Your task to perform on an android device: install app "Nova Launcher" Image 0: 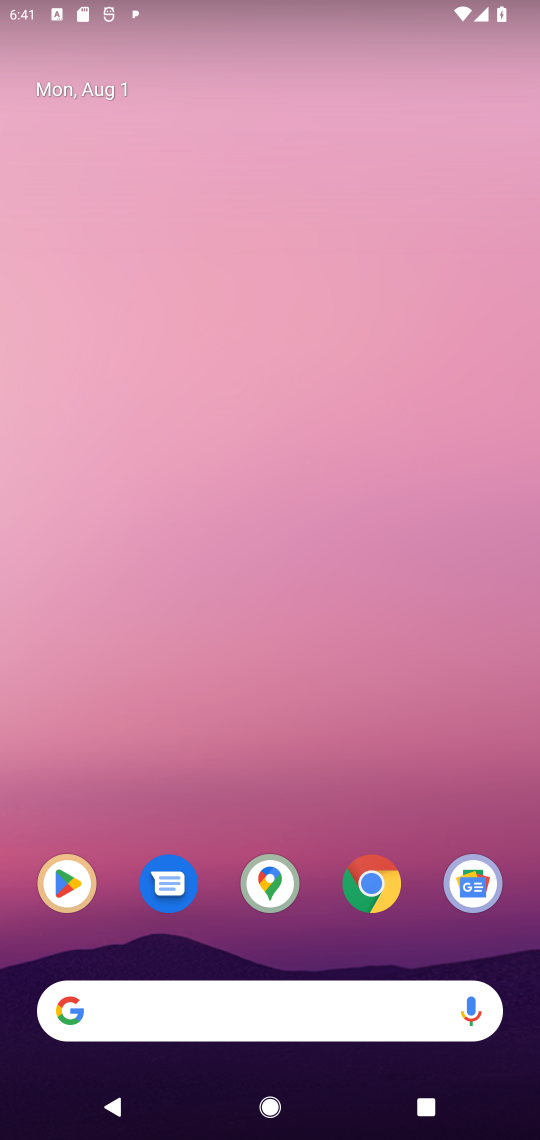
Step 0: click (54, 882)
Your task to perform on an android device: install app "Nova Launcher" Image 1: 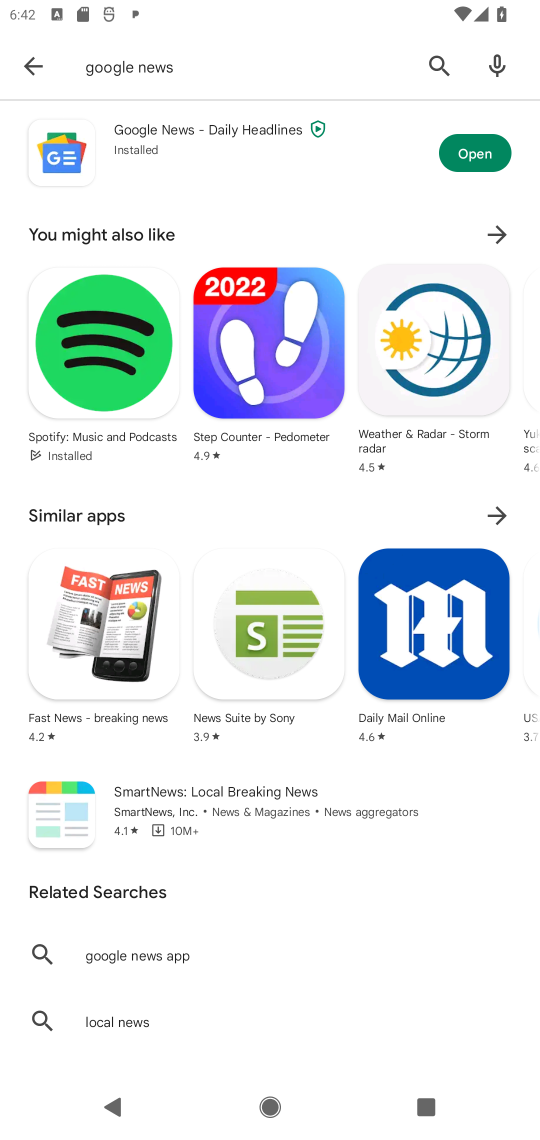
Step 1: click (39, 71)
Your task to perform on an android device: install app "Nova Launcher" Image 2: 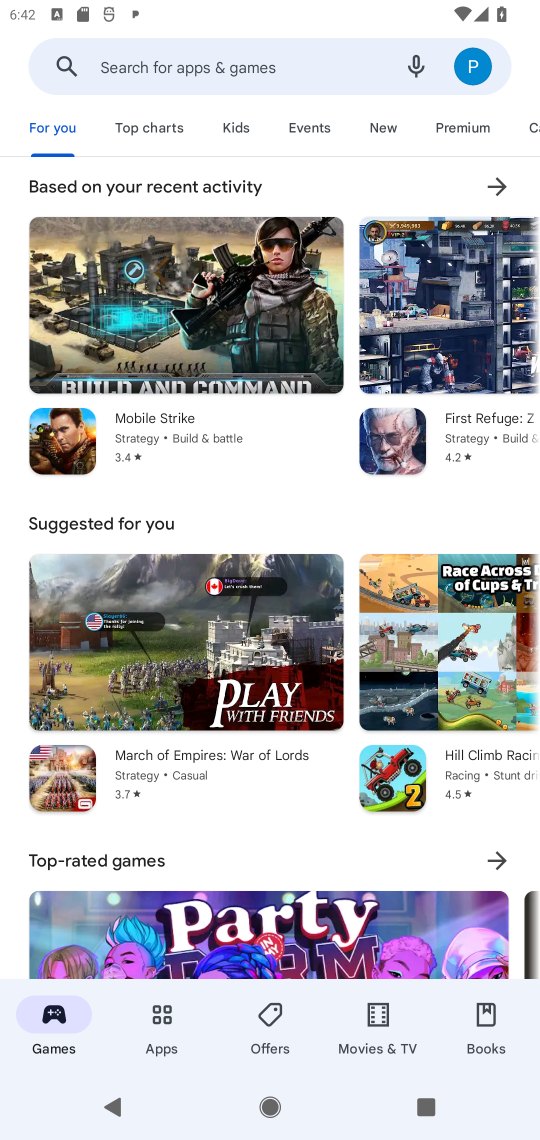
Step 2: click (183, 57)
Your task to perform on an android device: install app "Nova Launcher" Image 3: 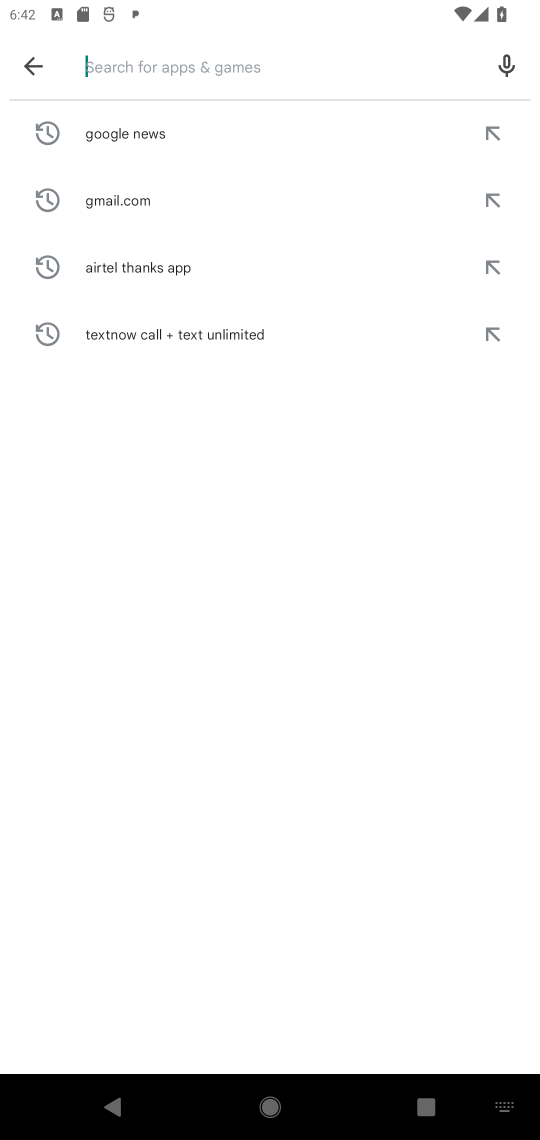
Step 3: type "Nova Launcher"
Your task to perform on an android device: install app "Nova Launcher" Image 4: 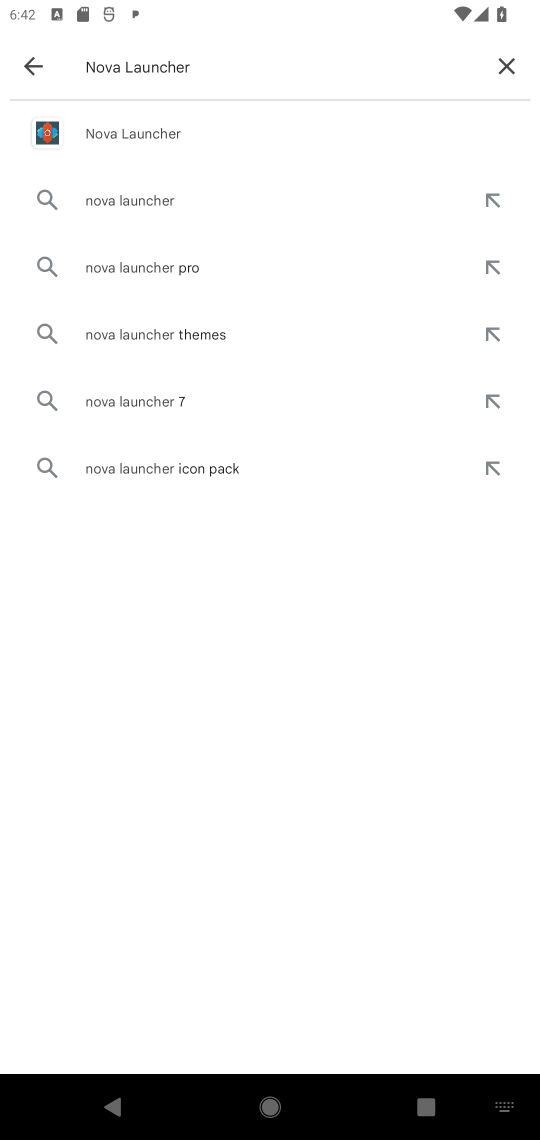
Step 4: click (132, 116)
Your task to perform on an android device: install app "Nova Launcher" Image 5: 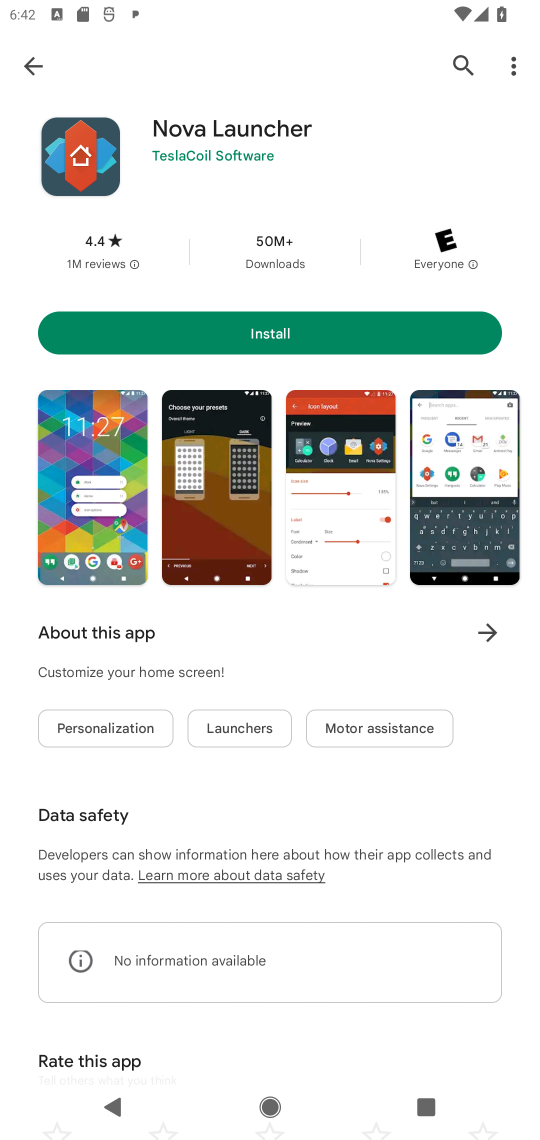
Step 5: click (321, 340)
Your task to perform on an android device: install app "Nova Launcher" Image 6: 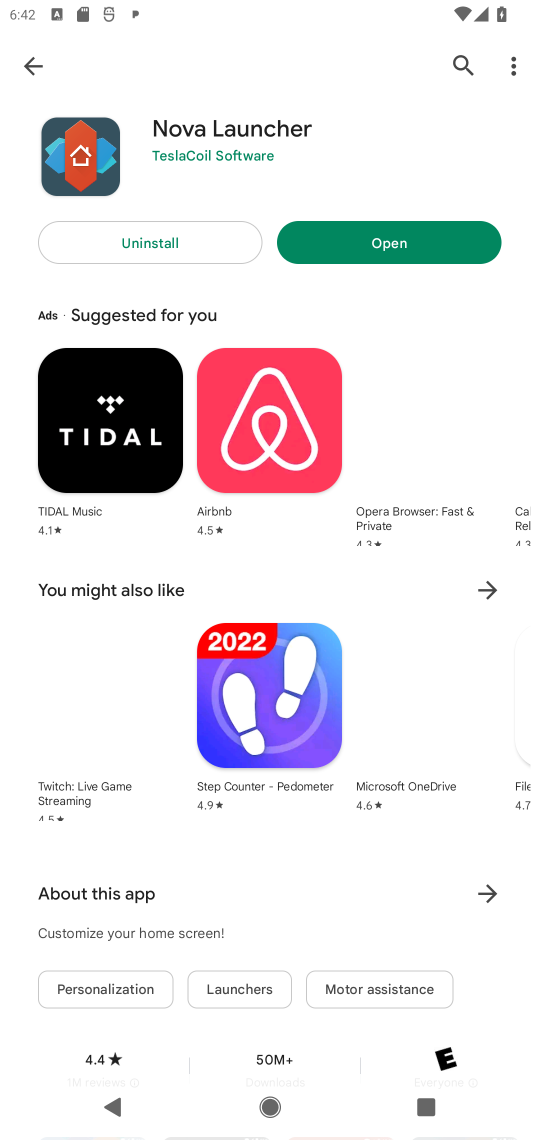
Step 6: click (431, 232)
Your task to perform on an android device: install app "Nova Launcher" Image 7: 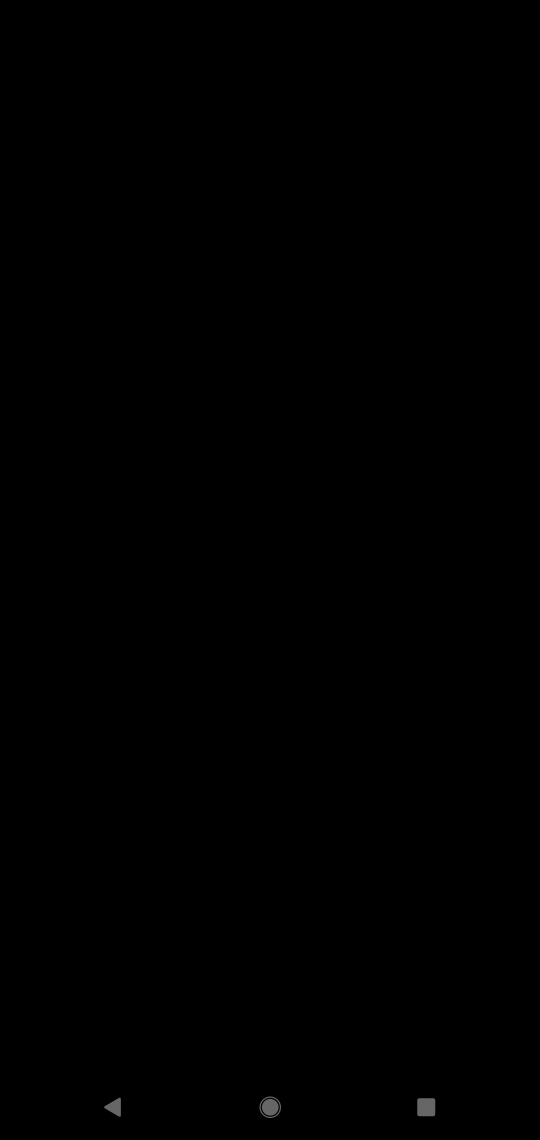
Step 7: task complete